Your task to perform on an android device: set the timer Image 0: 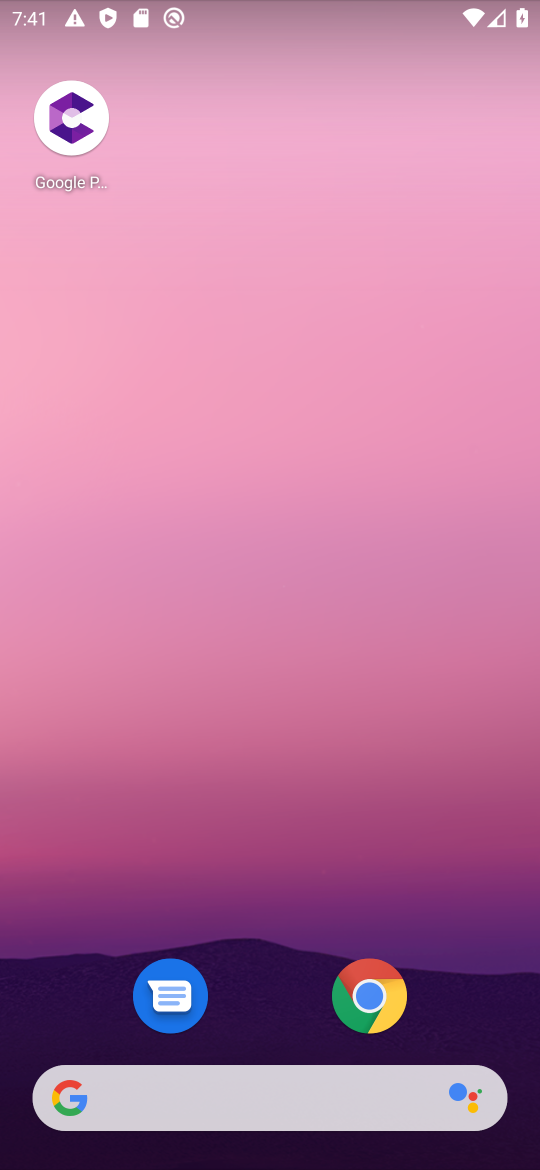
Step 0: press home button
Your task to perform on an android device: set the timer Image 1: 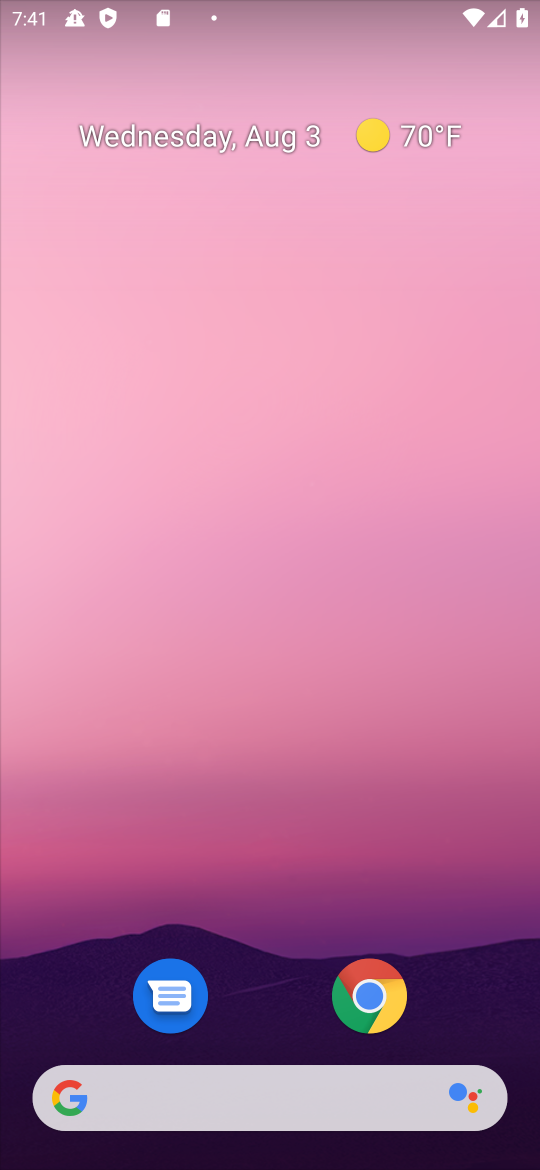
Step 1: drag from (301, 828) to (317, 1)
Your task to perform on an android device: set the timer Image 2: 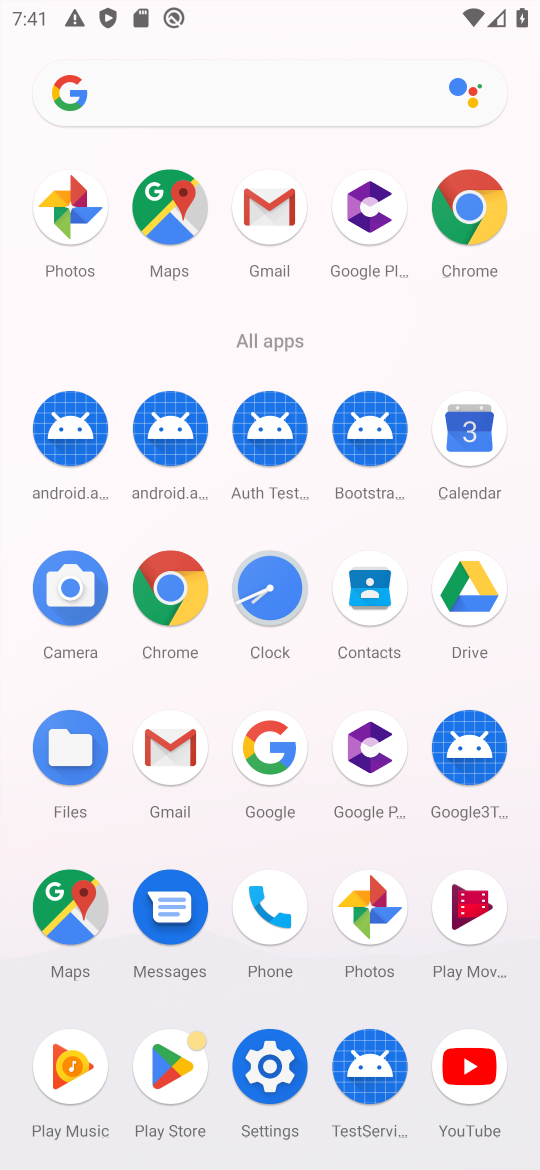
Step 2: click (280, 588)
Your task to perform on an android device: set the timer Image 3: 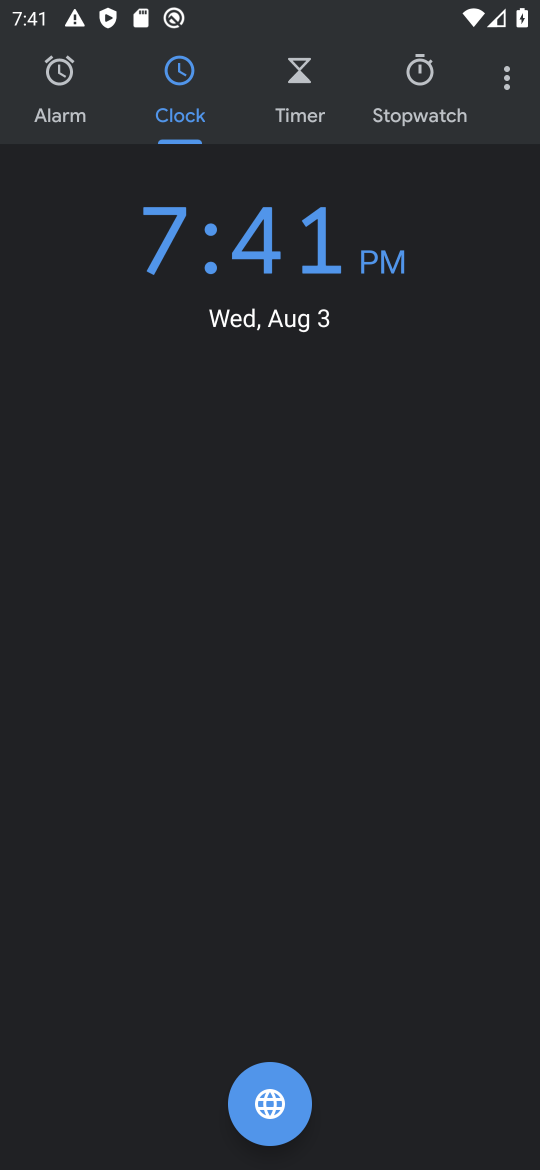
Step 3: click (309, 93)
Your task to perform on an android device: set the timer Image 4: 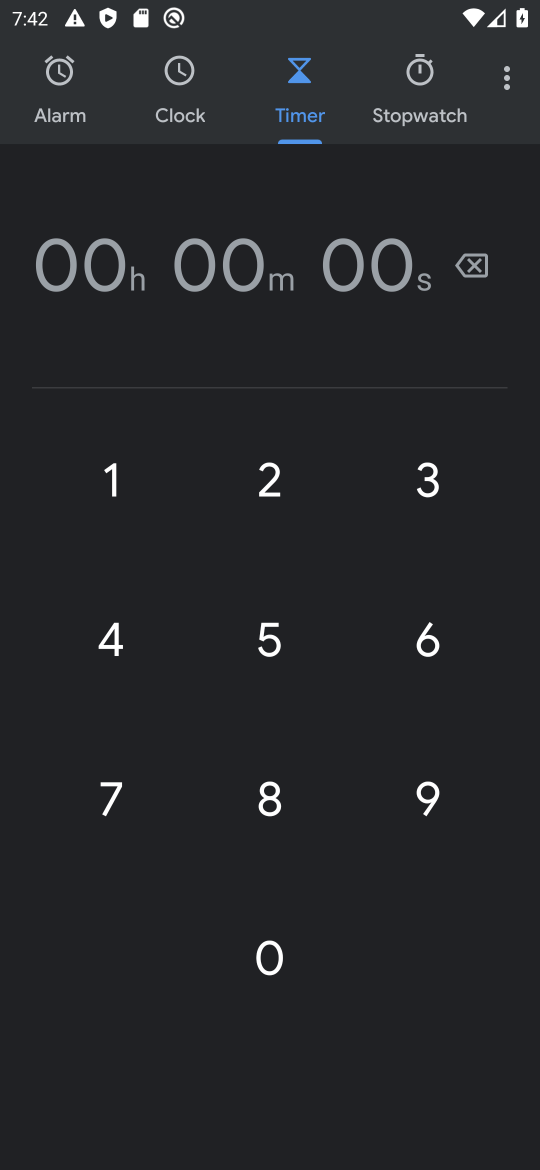
Step 4: task complete